Your task to perform on an android device: toggle notifications settings in the gmail app Image 0: 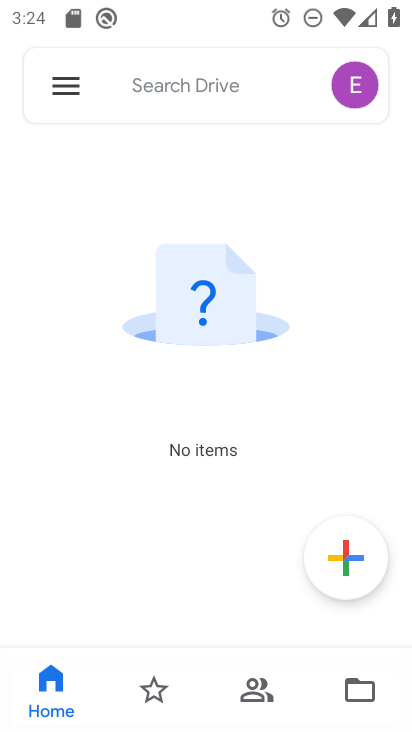
Step 0: press home button
Your task to perform on an android device: toggle notifications settings in the gmail app Image 1: 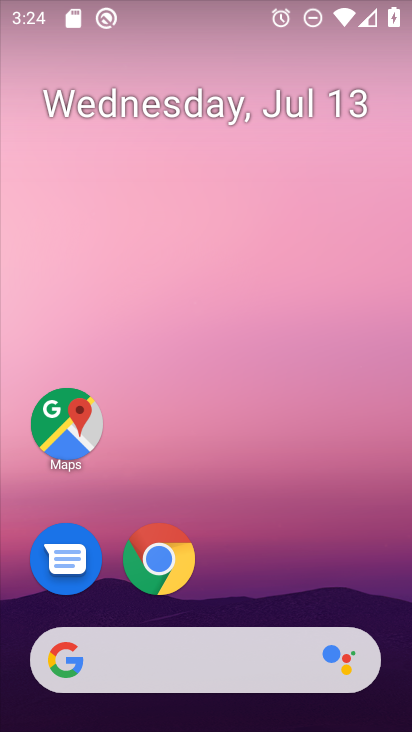
Step 1: drag from (357, 573) to (391, 213)
Your task to perform on an android device: toggle notifications settings in the gmail app Image 2: 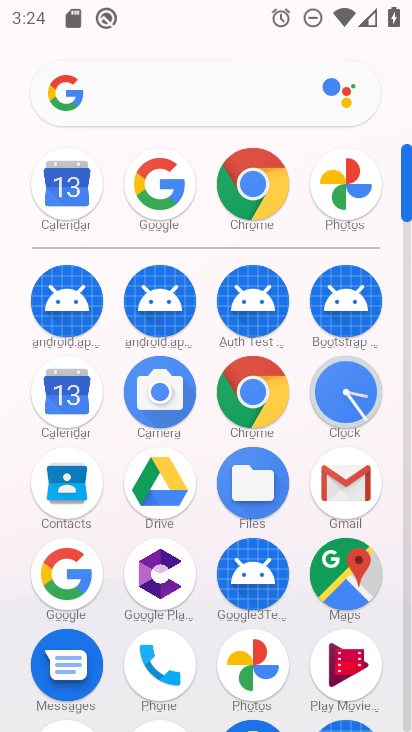
Step 2: click (358, 480)
Your task to perform on an android device: toggle notifications settings in the gmail app Image 3: 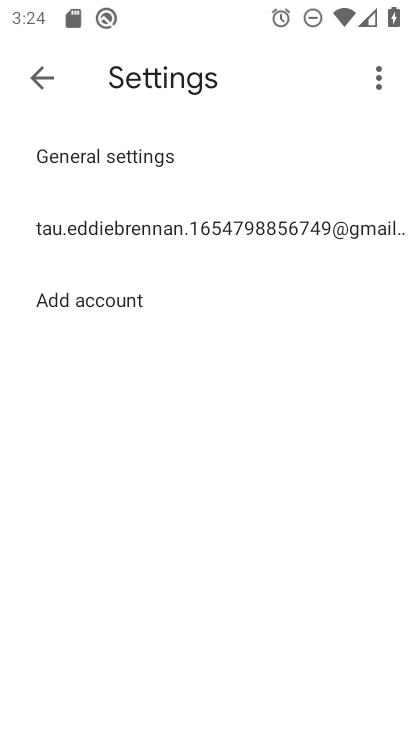
Step 3: click (325, 231)
Your task to perform on an android device: toggle notifications settings in the gmail app Image 4: 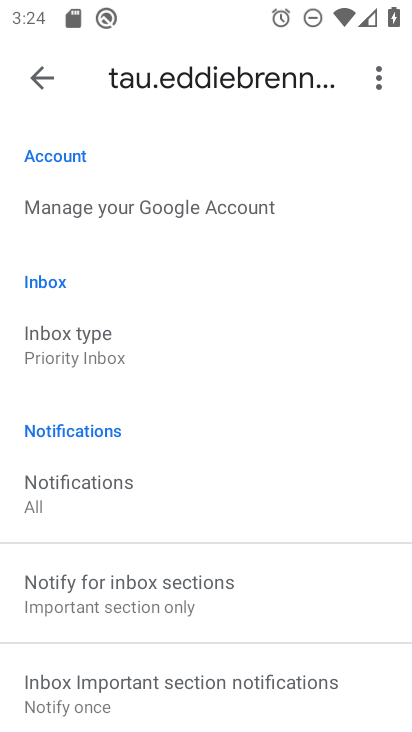
Step 4: drag from (305, 528) to (315, 461)
Your task to perform on an android device: toggle notifications settings in the gmail app Image 5: 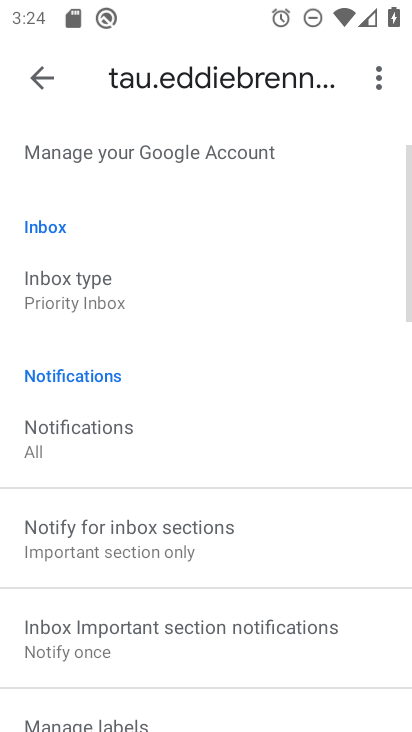
Step 5: drag from (333, 507) to (337, 405)
Your task to perform on an android device: toggle notifications settings in the gmail app Image 6: 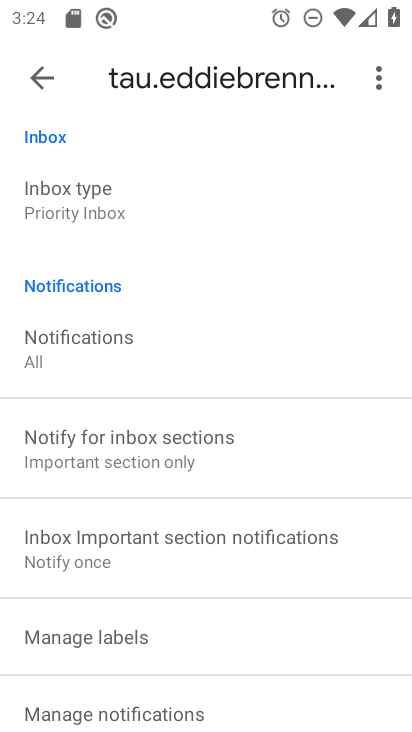
Step 6: drag from (352, 471) to (352, 389)
Your task to perform on an android device: toggle notifications settings in the gmail app Image 7: 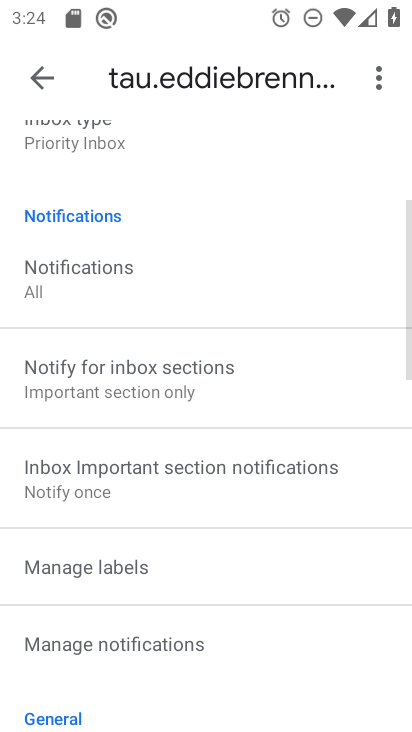
Step 7: drag from (355, 456) to (350, 251)
Your task to perform on an android device: toggle notifications settings in the gmail app Image 8: 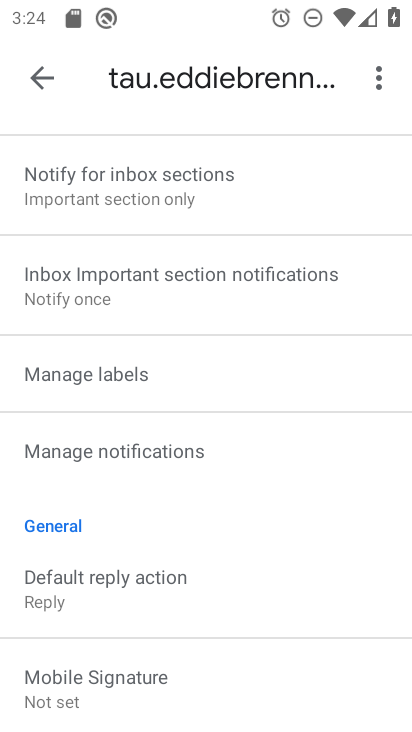
Step 8: drag from (353, 449) to (354, 339)
Your task to perform on an android device: toggle notifications settings in the gmail app Image 9: 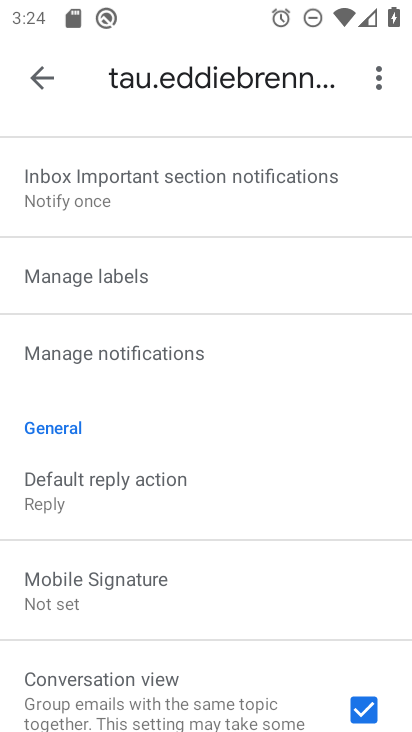
Step 9: drag from (360, 439) to (364, 279)
Your task to perform on an android device: toggle notifications settings in the gmail app Image 10: 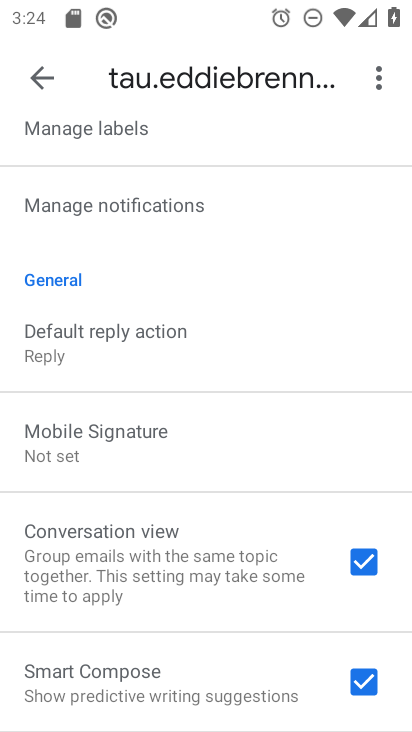
Step 10: drag from (347, 415) to (348, 333)
Your task to perform on an android device: toggle notifications settings in the gmail app Image 11: 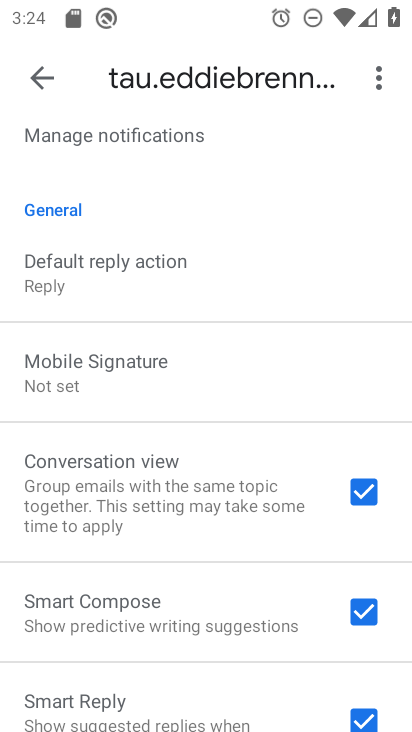
Step 11: drag from (305, 281) to (297, 344)
Your task to perform on an android device: toggle notifications settings in the gmail app Image 12: 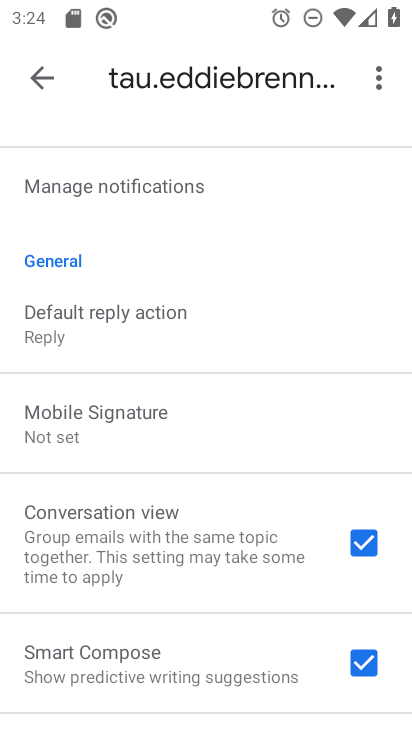
Step 12: drag from (289, 263) to (287, 393)
Your task to perform on an android device: toggle notifications settings in the gmail app Image 13: 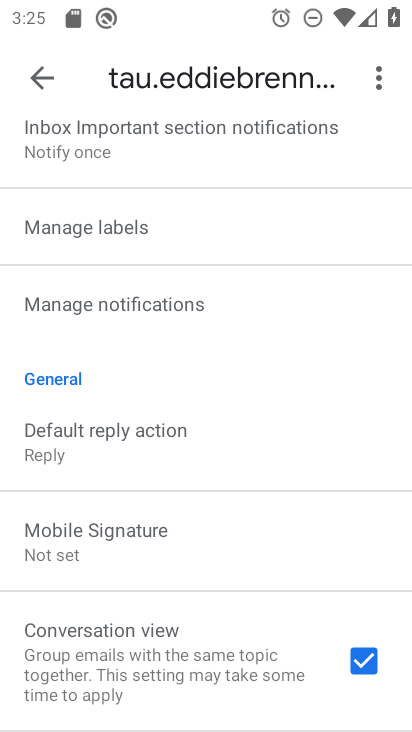
Step 13: drag from (302, 281) to (304, 389)
Your task to perform on an android device: toggle notifications settings in the gmail app Image 14: 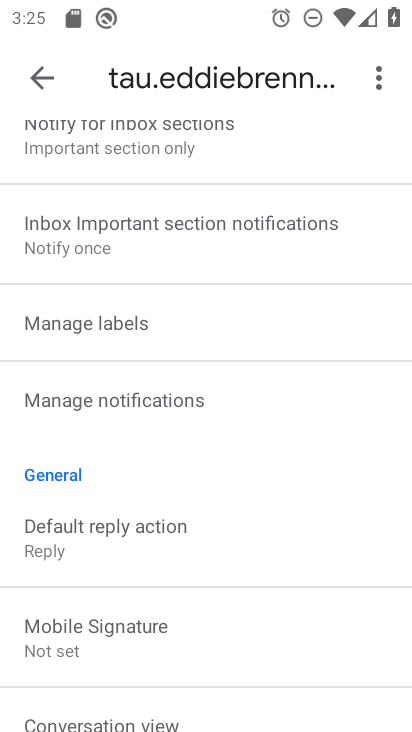
Step 14: click (269, 384)
Your task to perform on an android device: toggle notifications settings in the gmail app Image 15: 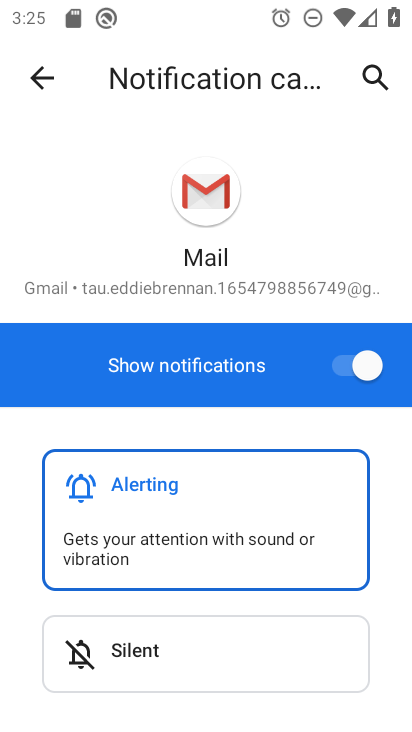
Step 15: click (349, 376)
Your task to perform on an android device: toggle notifications settings in the gmail app Image 16: 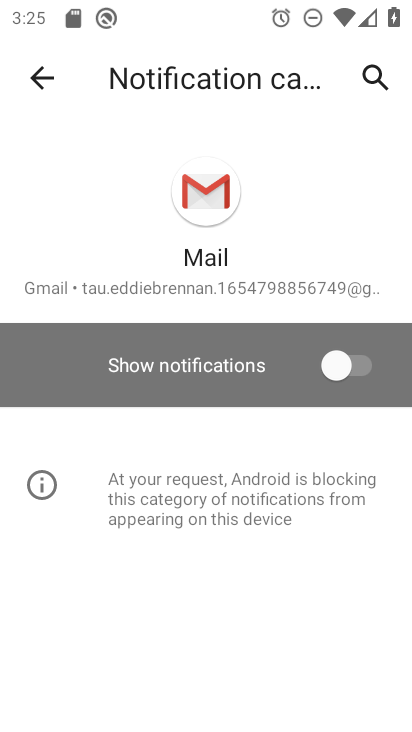
Step 16: task complete